Your task to perform on an android device: Turn off the flashlight Image 0: 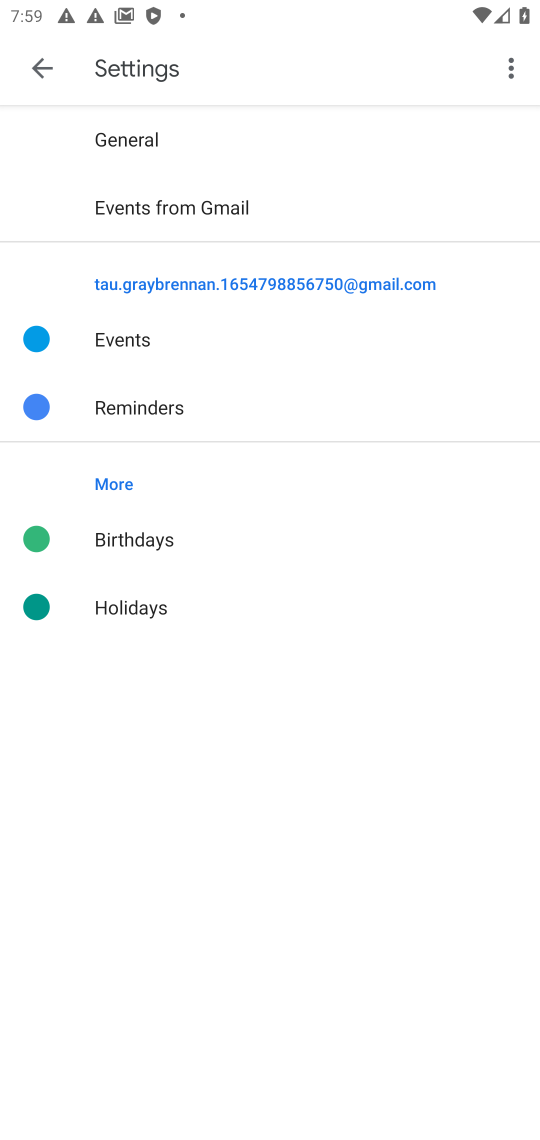
Step 0: press home button
Your task to perform on an android device: Turn off the flashlight Image 1: 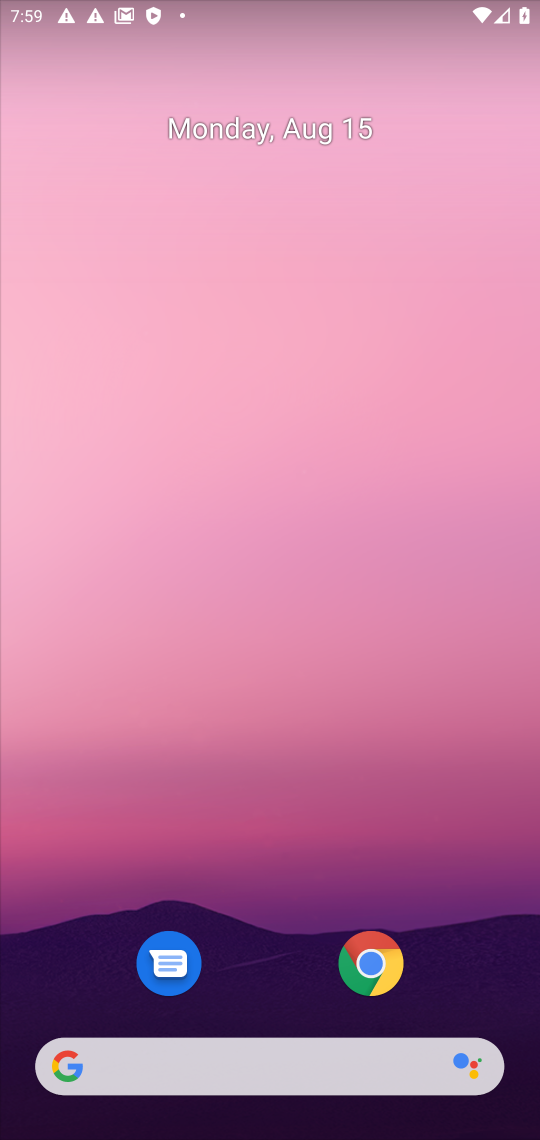
Step 1: drag from (246, 1006) to (424, 212)
Your task to perform on an android device: Turn off the flashlight Image 2: 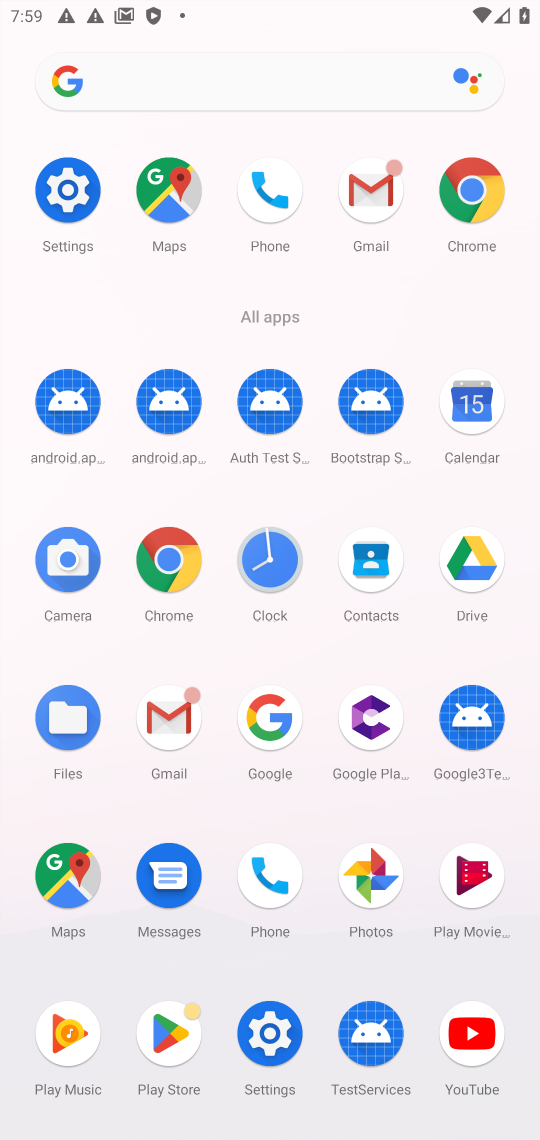
Step 2: click (42, 190)
Your task to perform on an android device: Turn off the flashlight Image 3: 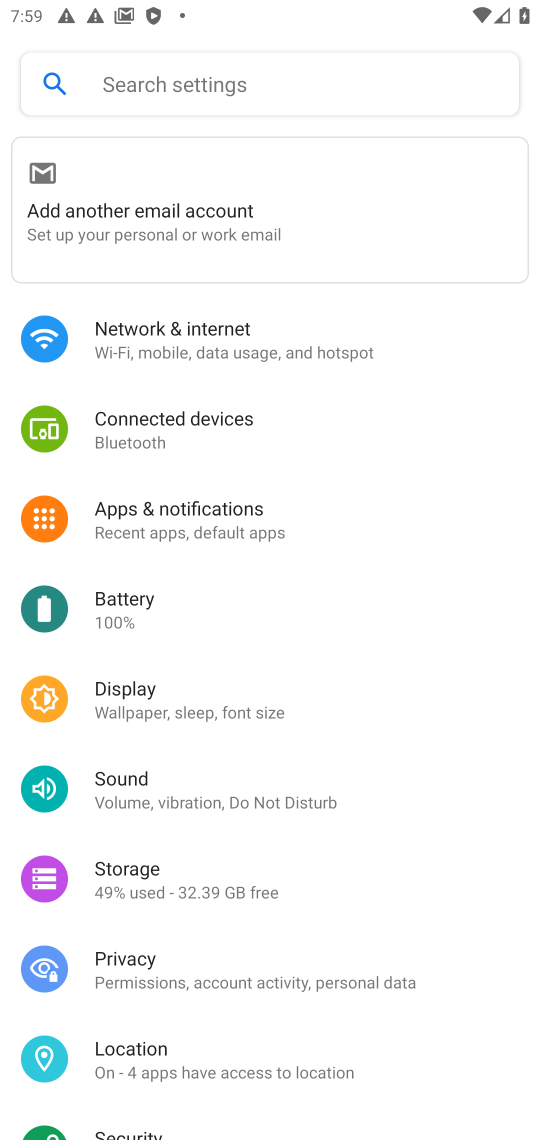
Step 3: task complete